Your task to perform on an android device: Go to sound settings Image 0: 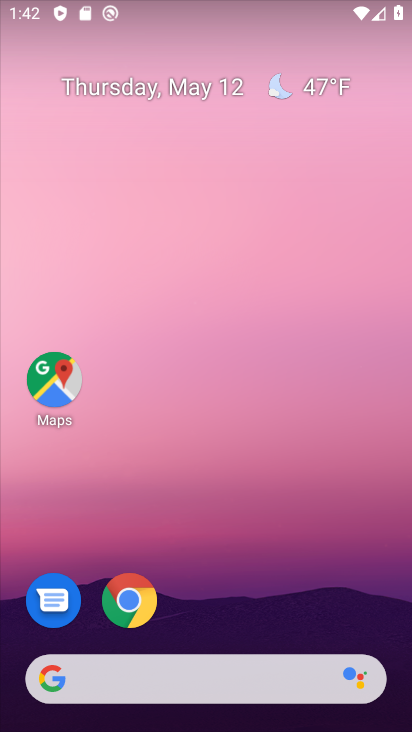
Step 0: drag from (215, 719) to (214, 198)
Your task to perform on an android device: Go to sound settings Image 1: 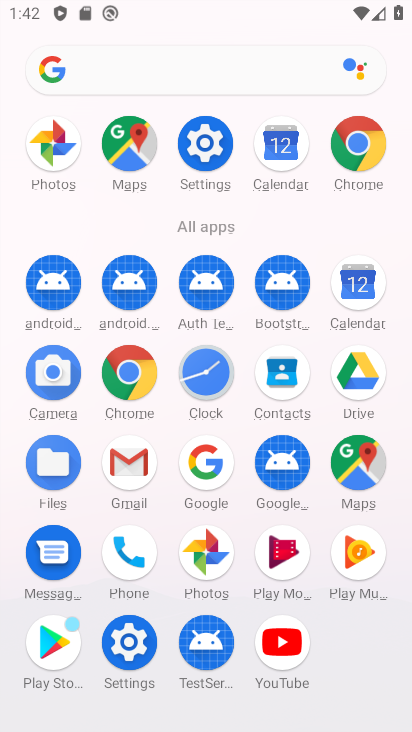
Step 1: click (205, 148)
Your task to perform on an android device: Go to sound settings Image 2: 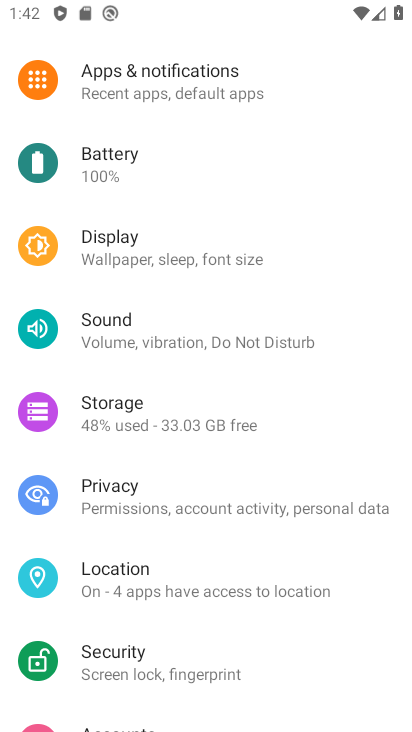
Step 2: click (128, 334)
Your task to perform on an android device: Go to sound settings Image 3: 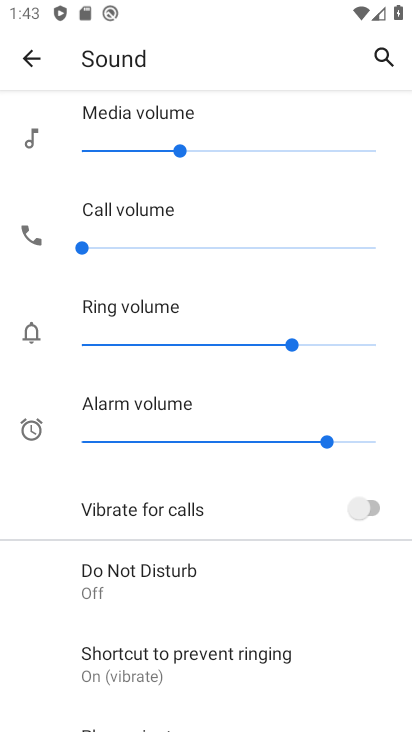
Step 3: task complete